Your task to perform on an android device: star an email in the gmail app Image 0: 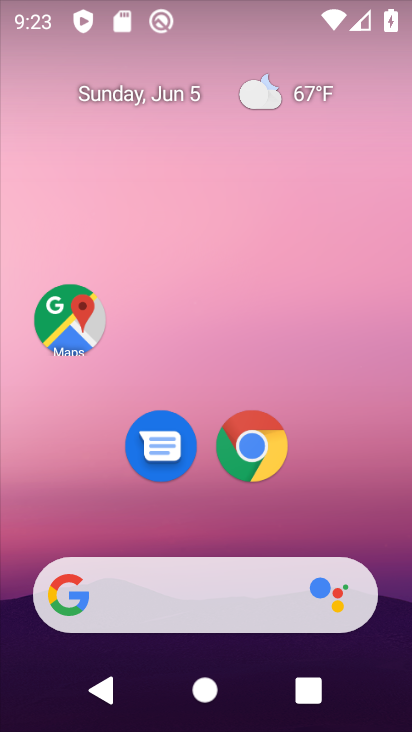
Step 0: drag from (204, 543) to (206, 161)
Your task to perform on an android device: star an email in the gmail app Image 1: 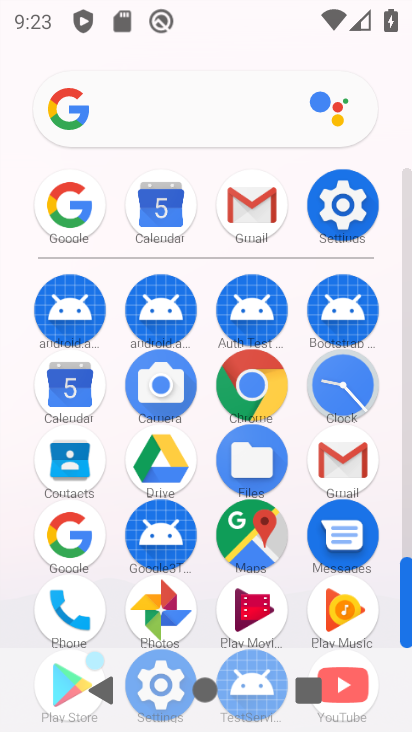
Step 1: click (264, 197)
Your task to perform on an android device: star an email in the gmail app Image 2: 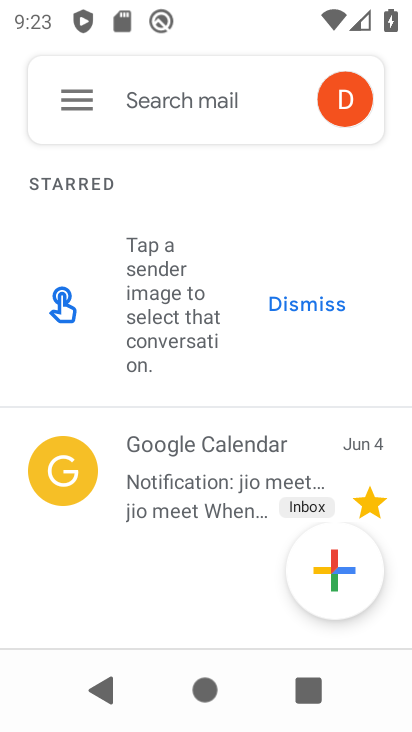
Step 2: task complete